Your task to perform on an android device: Google the capital of Paraguay Image 0: 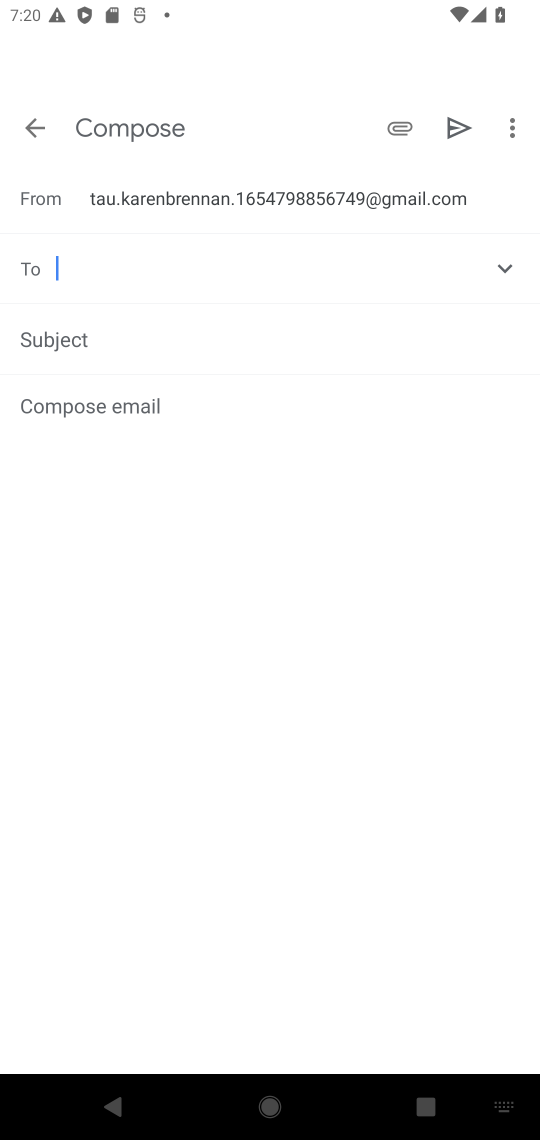
Step 0: press home button
Your task to perform on an android device: Google the capital of Paraguay Image 1: 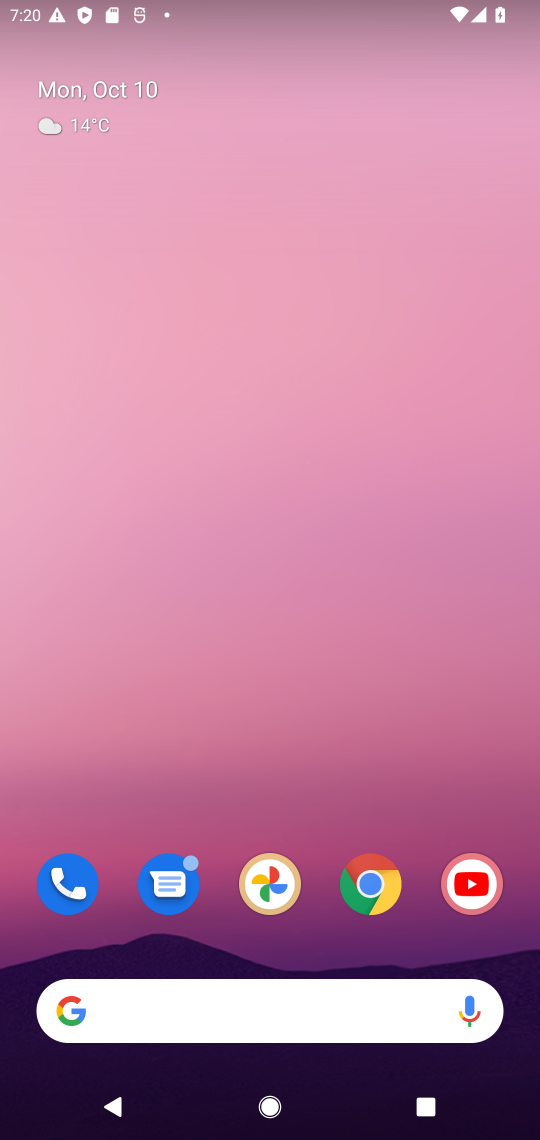
Step 1: drag from (343, 879) to (263, 113)
Your task to perform on an android device: Google the capital of Paraguay Image 2: 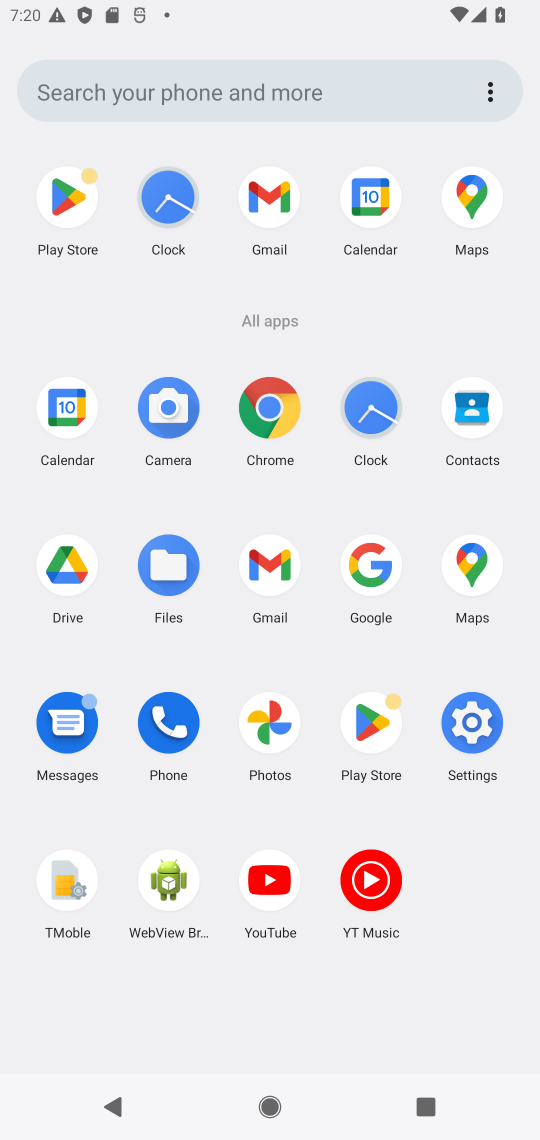
Step 2: click (290, 425)
Your task to perform on an android device: Google the capital of Paraguay Image 3: 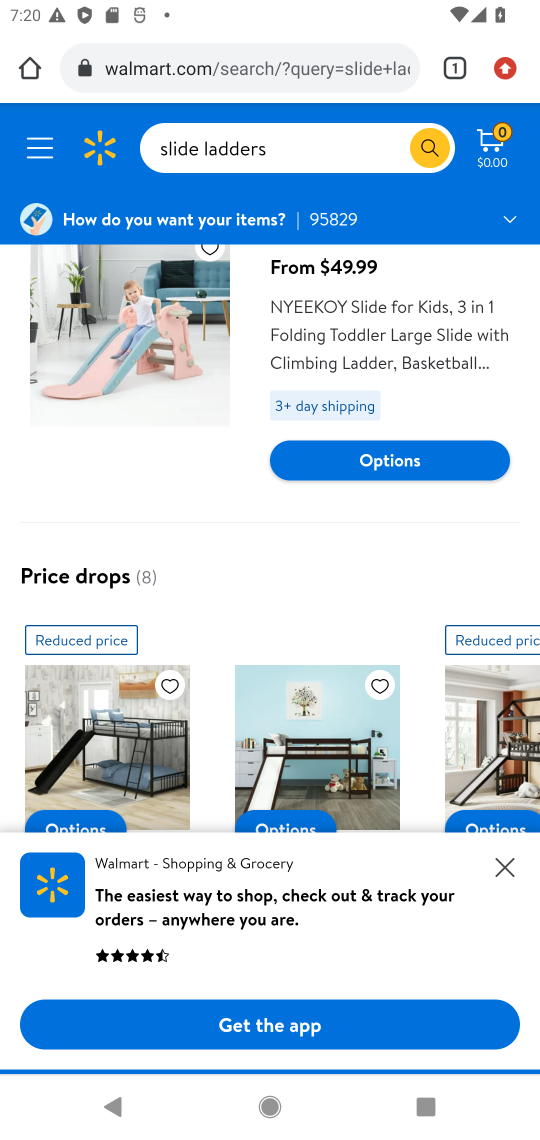
Step 3: click (268, 73)
Your task to perform on an android device: Google the capital of Paraguay Image 4: 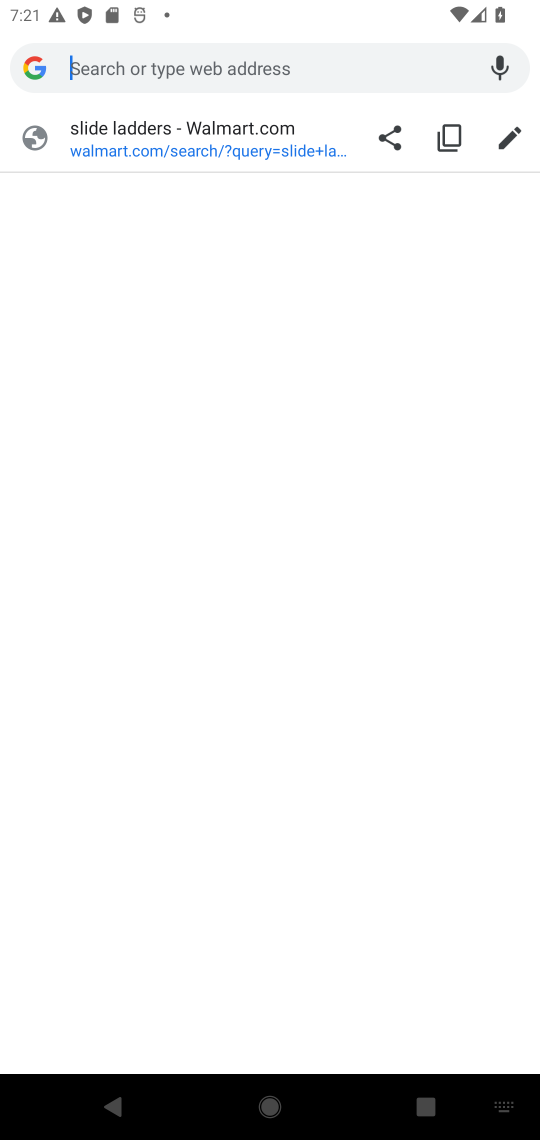
Step 4: type "capital of paraguay"
Your task to perform on an android device: Google the capital of Paraguay Image 5: 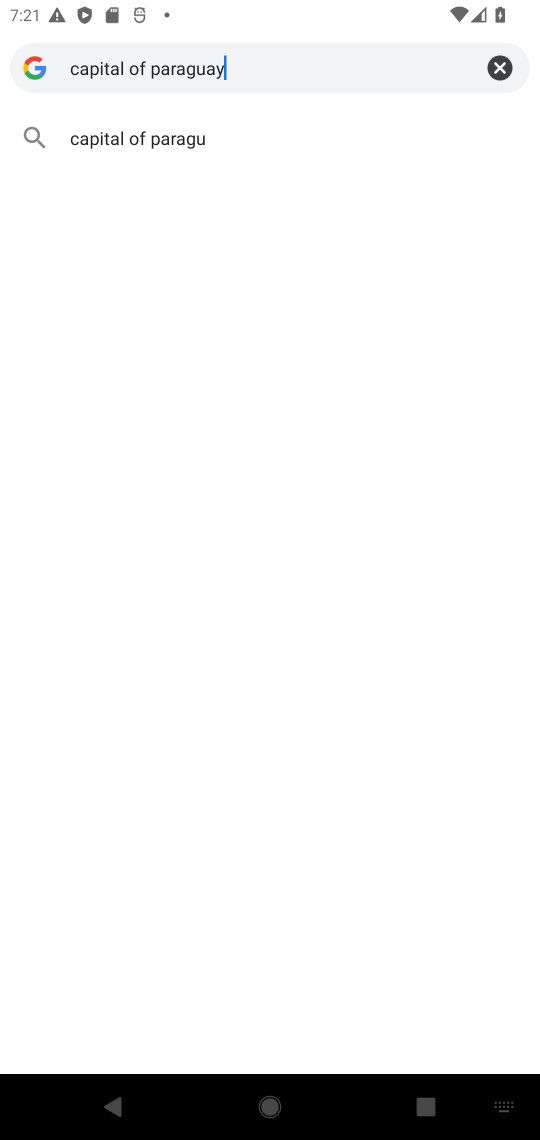
Step 5: type ""
Your task to perform on an android device: Google the capital of Paraguay Image 6: 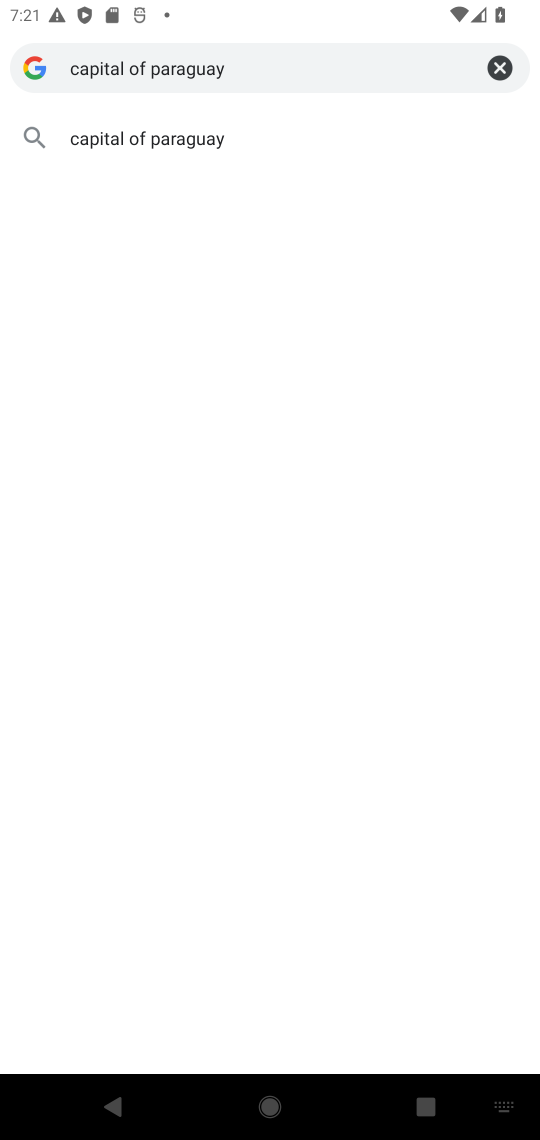
Step 6: click (132, 148)
Your task to perform on an android device: Google the capital of Paraguay Image 7: 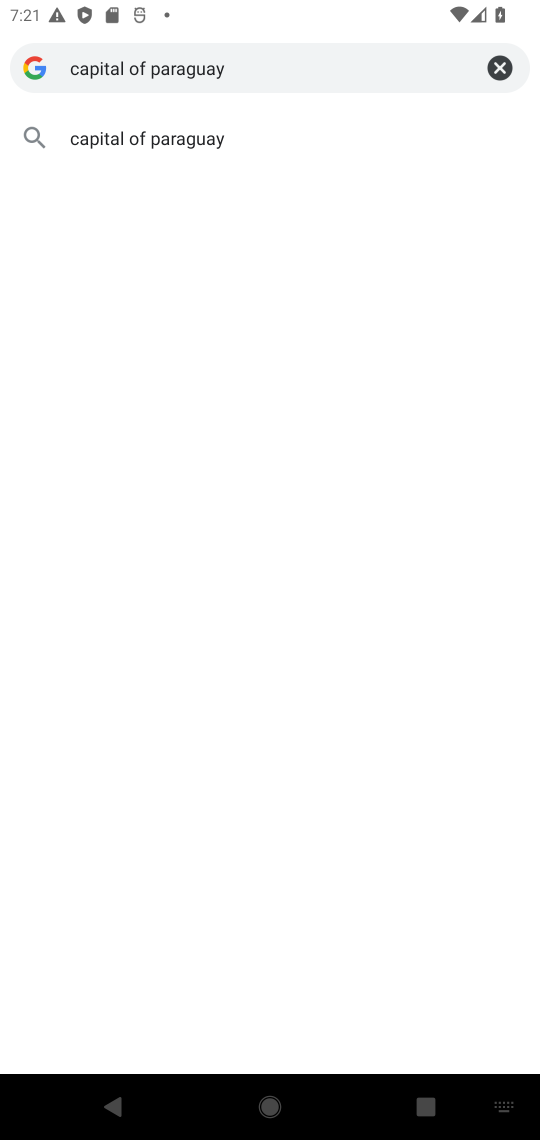
Step 7: click (132, 148)
Your task to perform on an android device: Google the capital of Paraguay Image 8: 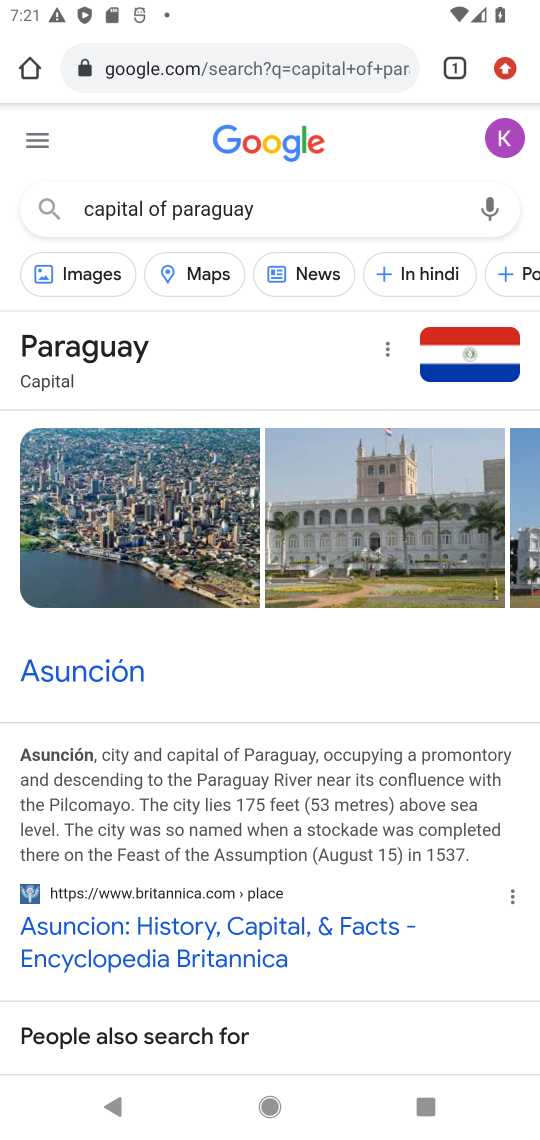
Step 8: drag from (348, 794) to (284, 273)
Your task to perform on an android device: Google the capital of Paraguay Image 9: 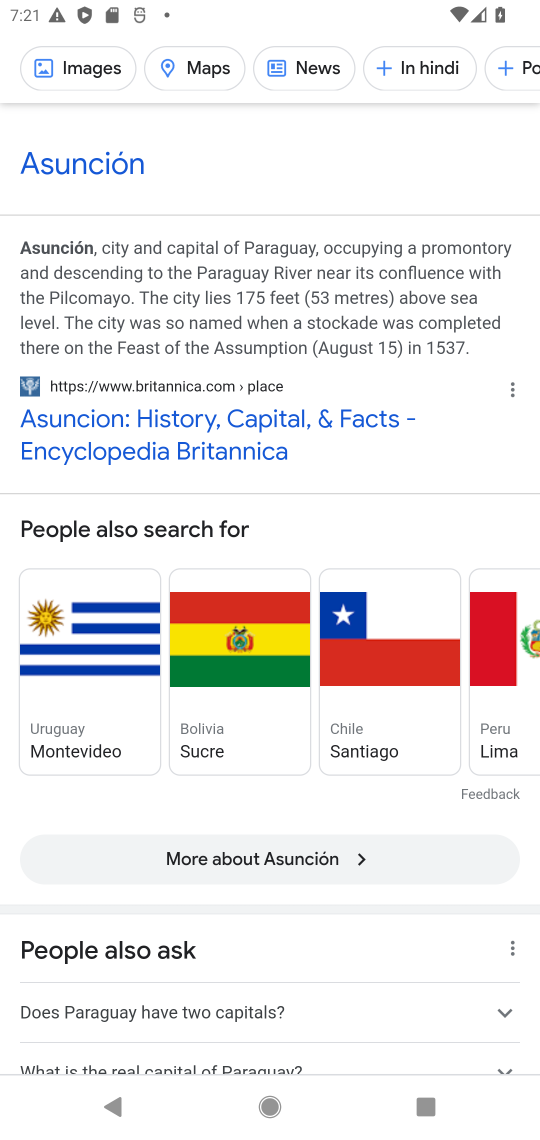
Step 9: drag from (400, 814) to (157, 1005)
Your task to perform on an android device: Google the capital of Paraguay Image 10: 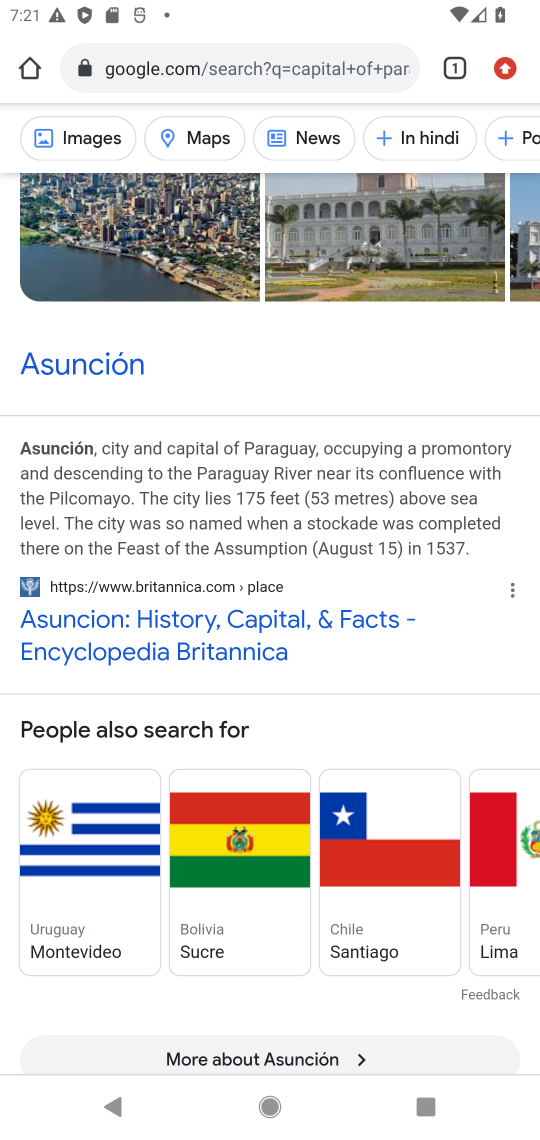
Step 10: click (93, 369)
Your task to perform on an android device: Google the capital of Paraguay Image 11: 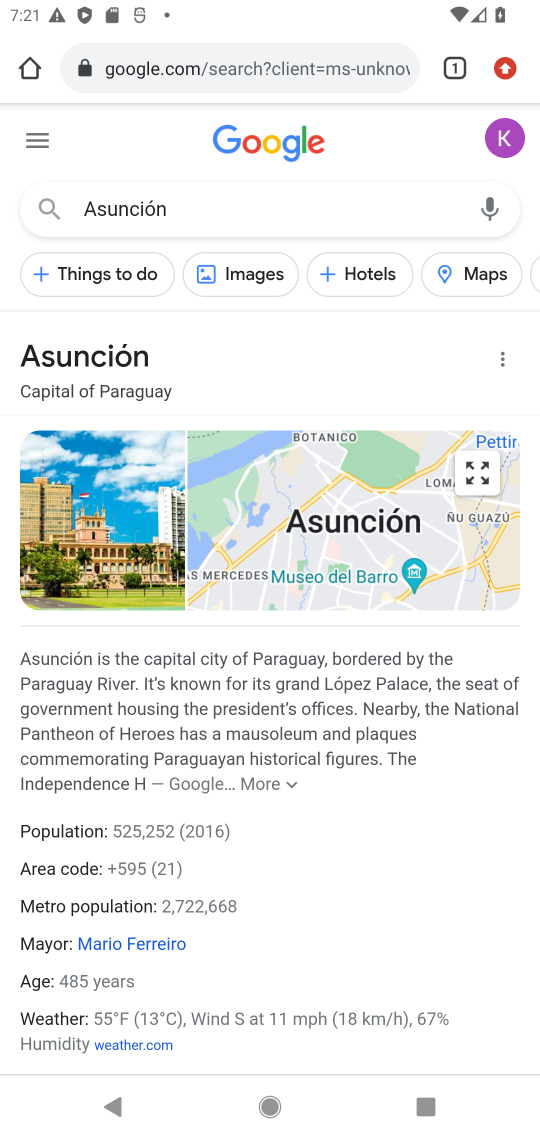
Step 11: drag from (383, 907) to (325, 529)
Your task to perform on an android device: Google the capital of Paraguay Image 12: 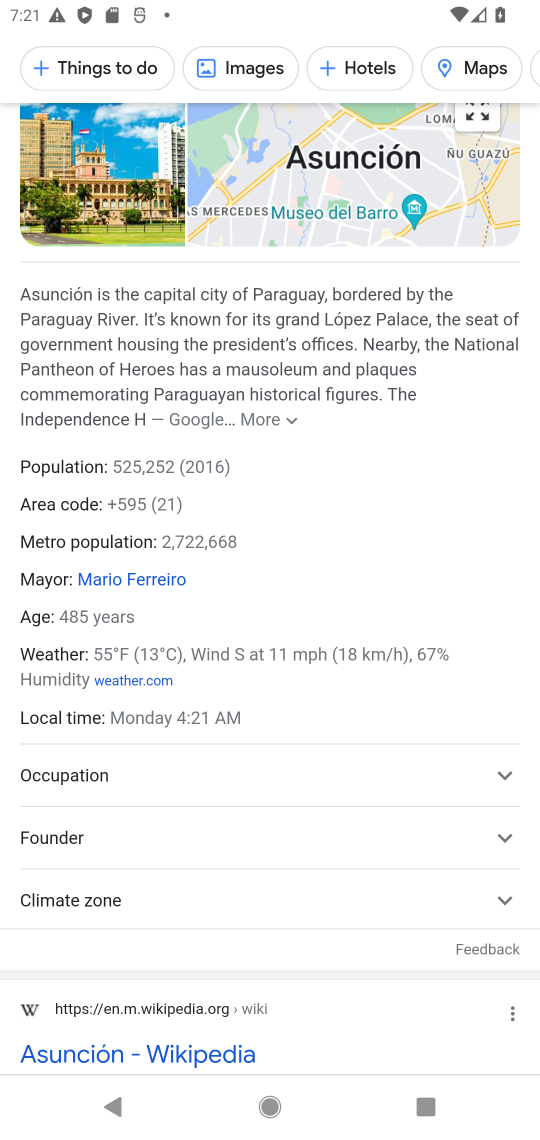
Step 12: drag from (353, 846) to (277, 326)
Your task to perform on an android device: Google the capital of Paraguay Image 13: 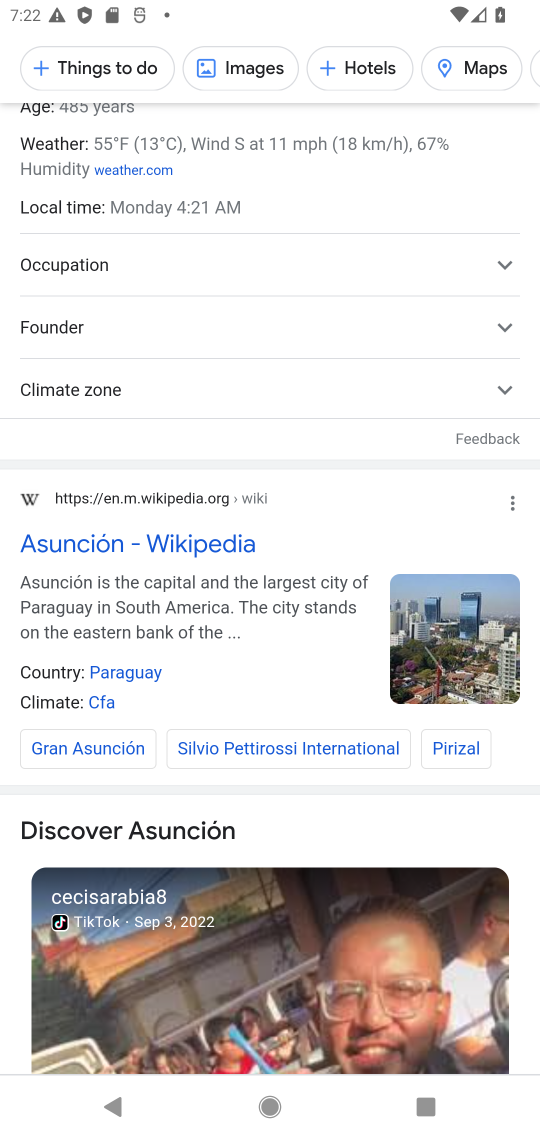
Step 13: drag from (324, 699) to (377, 504)
Your task to perform on an android device: Google the capital of Paraguay Image 14: 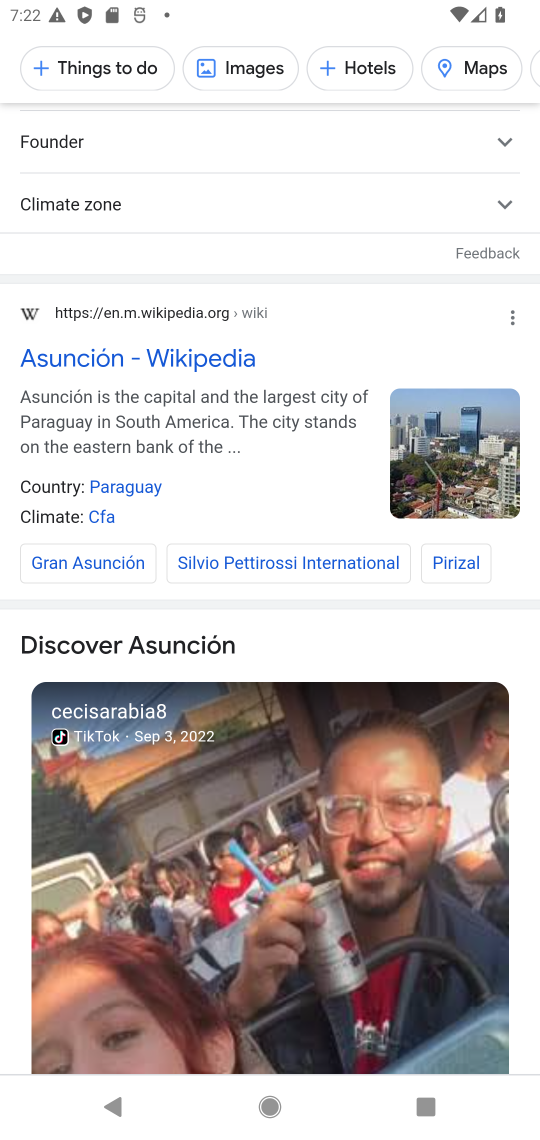
Step 14: drag from (360, 992) to (285, 206)
Your task to perform on an android device: Google the capital of Paraguay Image 15: 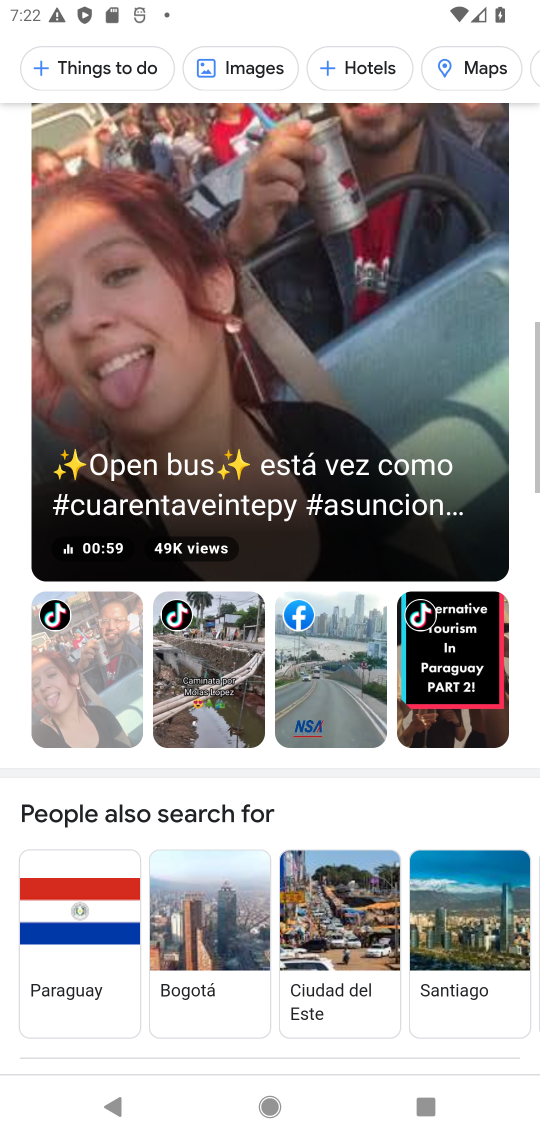
Step 15: drag from (419, 788) to (371, 373)
Your task to perform on an android device: Google the capital of Paraguay Image 16: 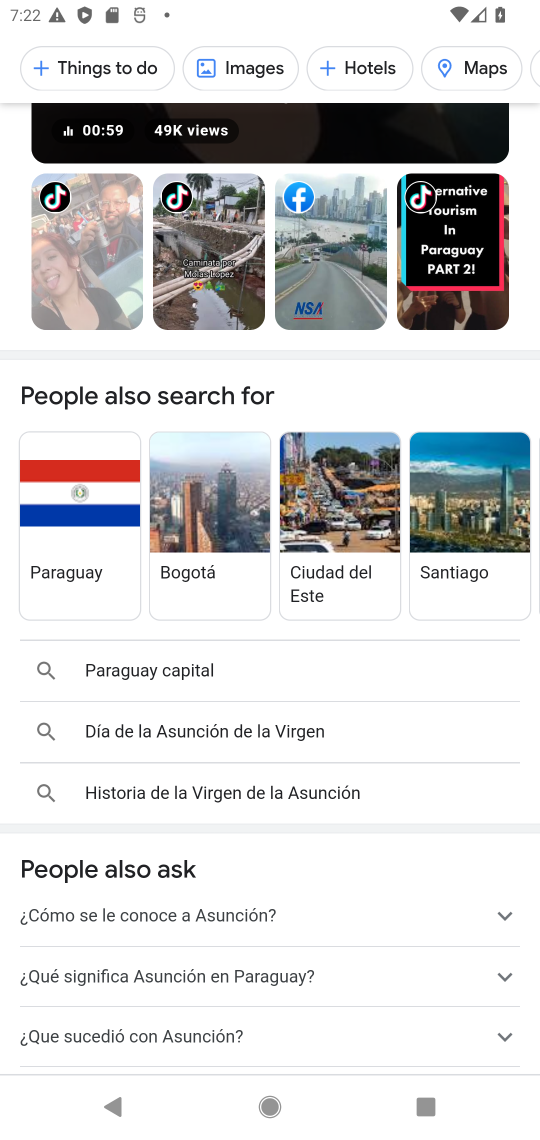
Step 16: drag from (337, 518) to (324, 199)
Your task to perform on an android device: Google the capital of Paraguay Image 17: 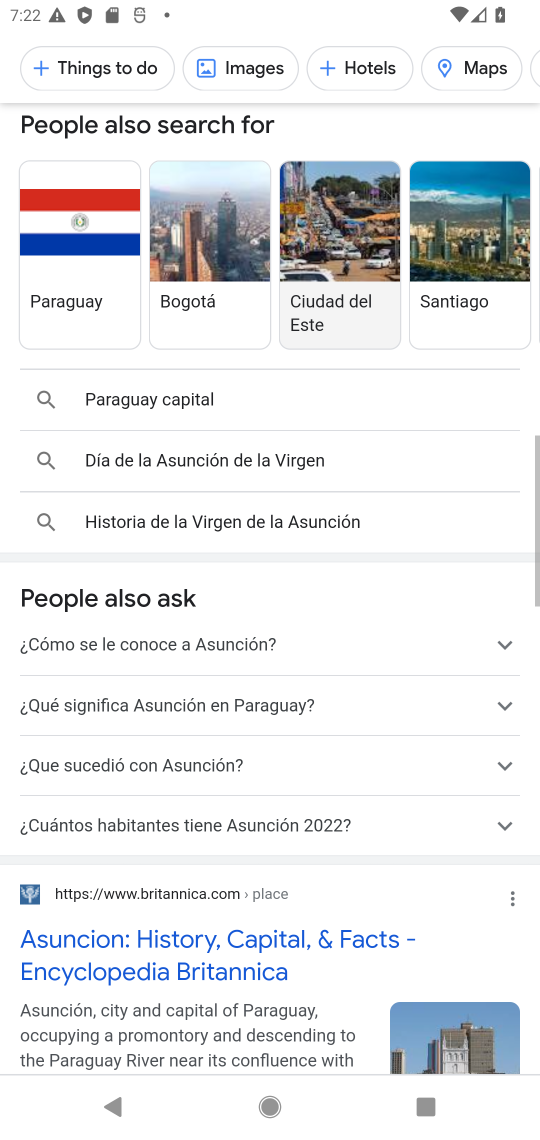
Step 17: drag from (375, 738) to (284, 223)
Your task to perform on an android device: Google the capital of Paraguay Image 18: 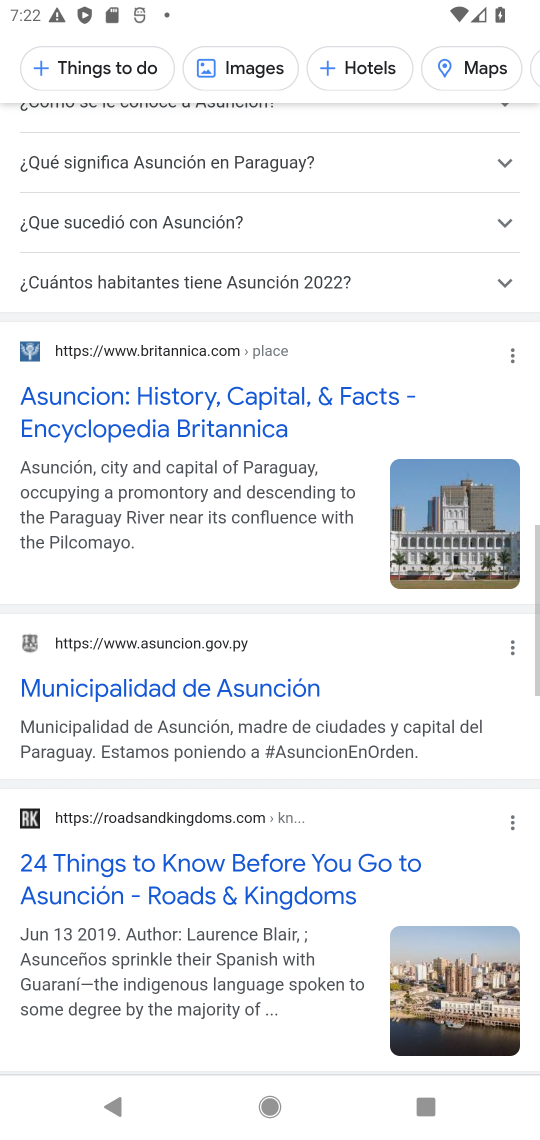
Step 18: drag from (357, 828) to (338, 293)
Your task to perform on an android device: Google the capital of Paraguay Image 19: 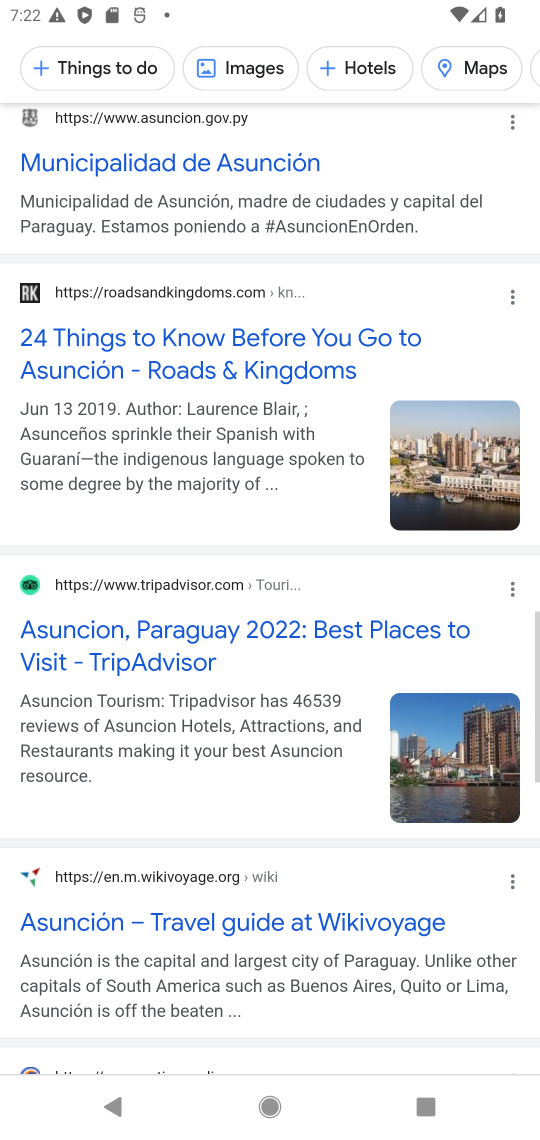
Step 19: drag from (362, 592) to (349, 229)
Your task to perform on an android device: Google the capital of Paraguay Image 20: 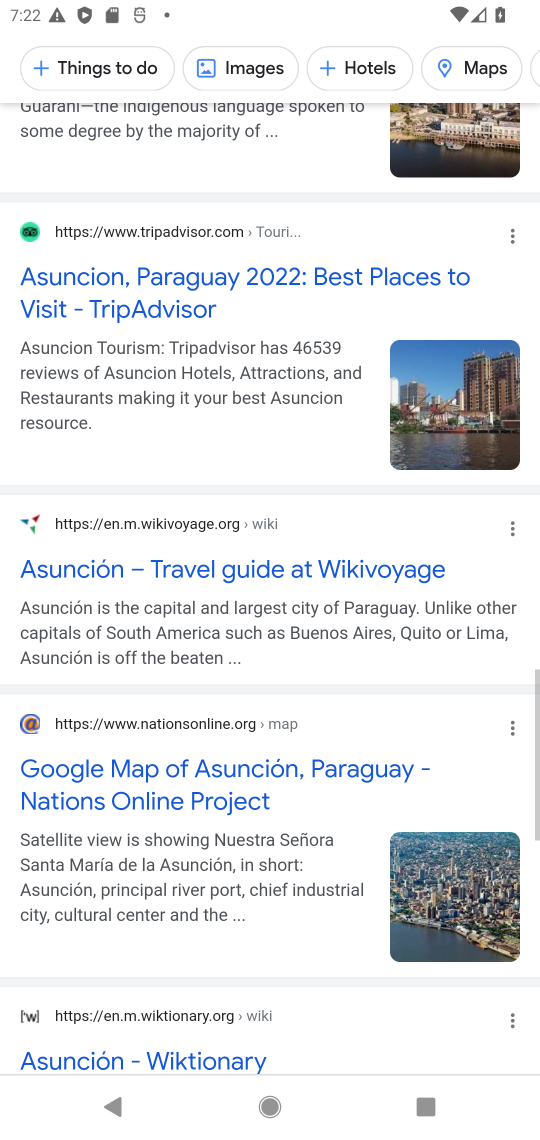
Step 20: drag from (360, 663) to (315, 311)
Your task to perform on an android device: Google the capital of Paraguay Image 21: 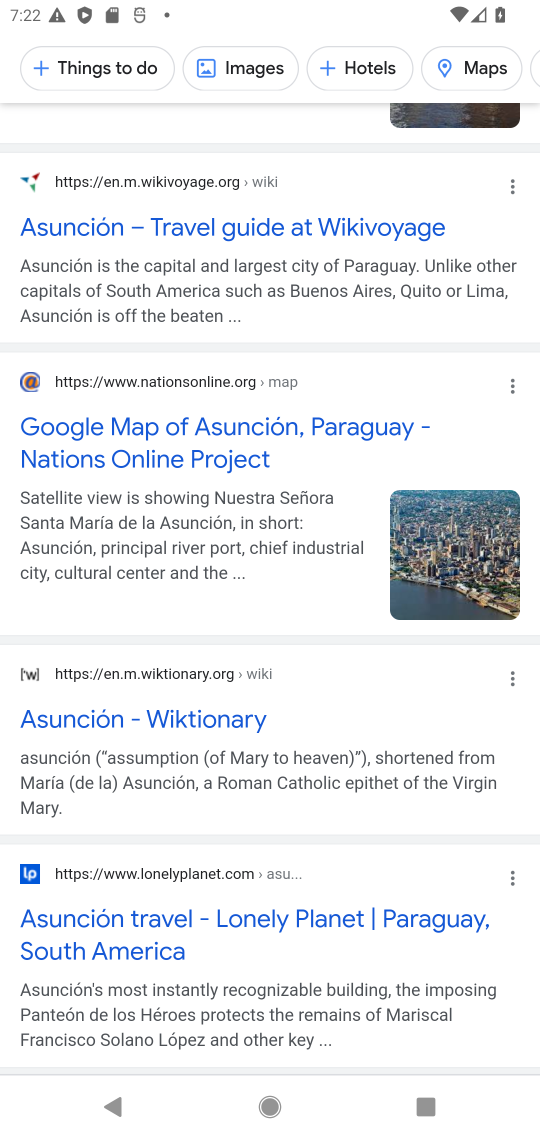
Step 21: drag from (287, 873) to (356, 309)
Your task to perform on an android device: Google the capital of Paraguay Image 22: 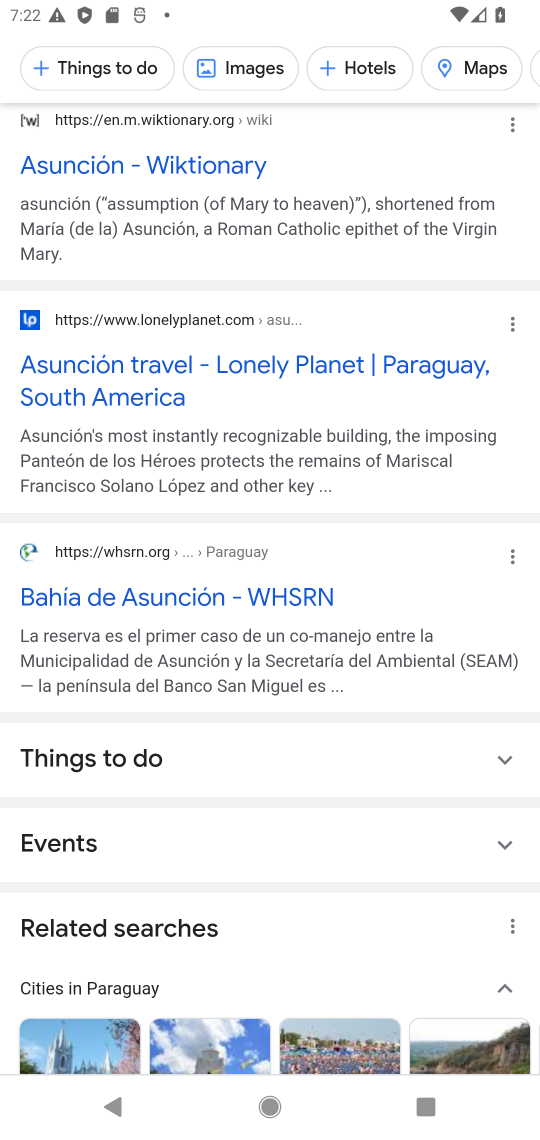
Step 22: drag from (346, 951) to (383, 355)
Your task to perform on an android device: Google the capital of Paraguay Image 23: 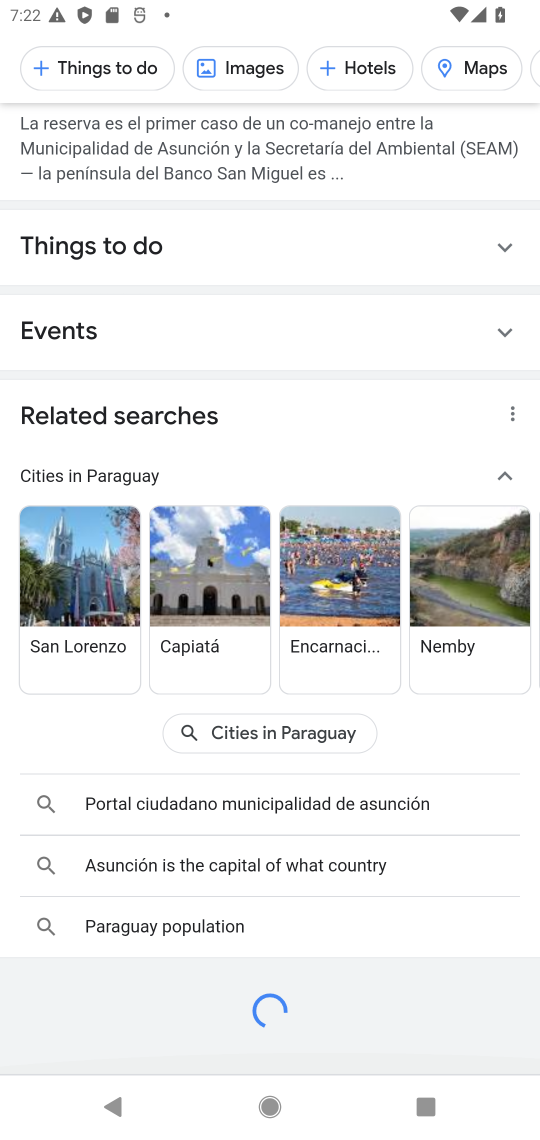
Step 23: drag from (401, 679) to (357, 230)
Your task to perform on an android device: Google the capital of Paraguay Image 24: 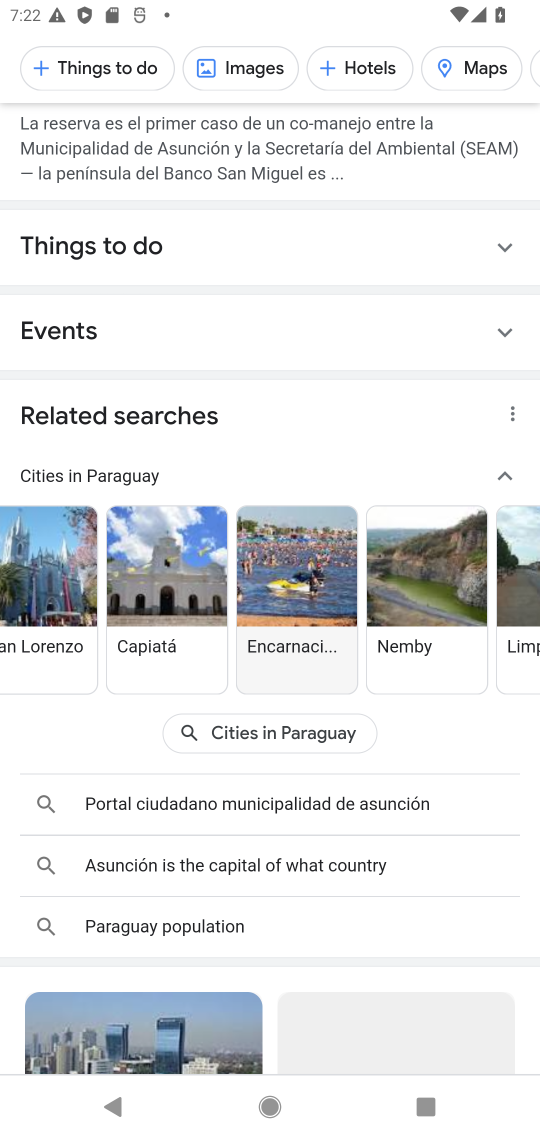
Step 24: drag from (400, 675) to (409, 337)
Your task to perform on an android device: Google the capital of Paraguay Image 25: 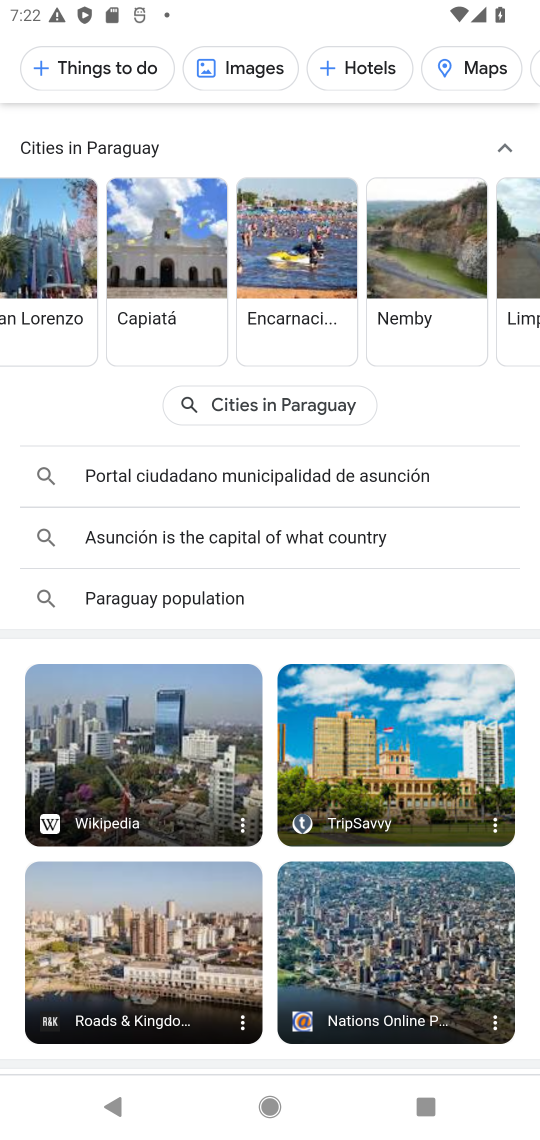
Step 25: drag from (406, 743) to (387, 69)
Your task to perform on an android device: Google the capital of Paraguay Image 26: 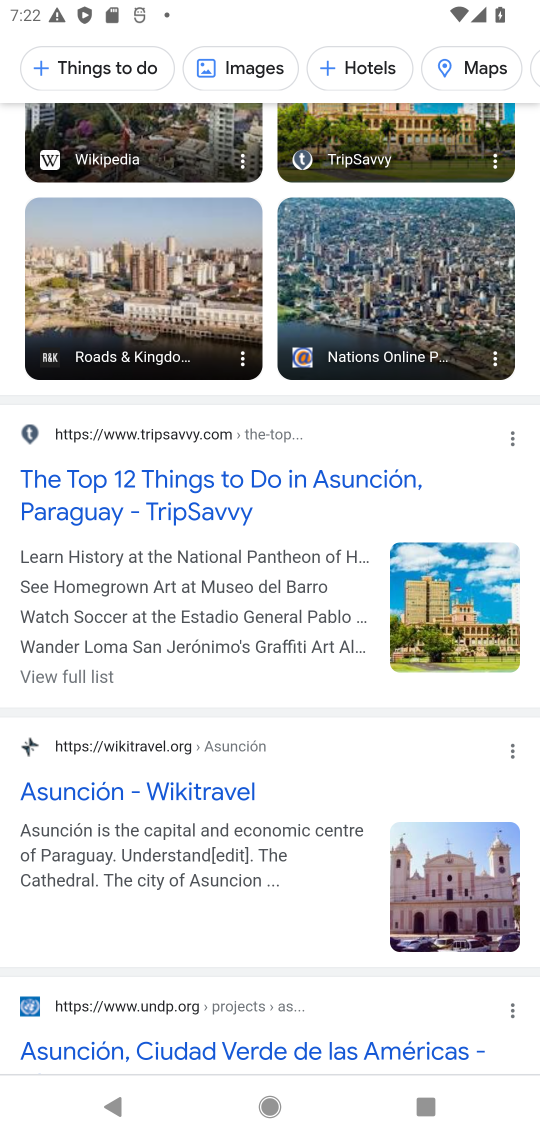
Step 26: click (249, 798)
Your task to perform on an android device: Google the capital of Paraguay Image 27: 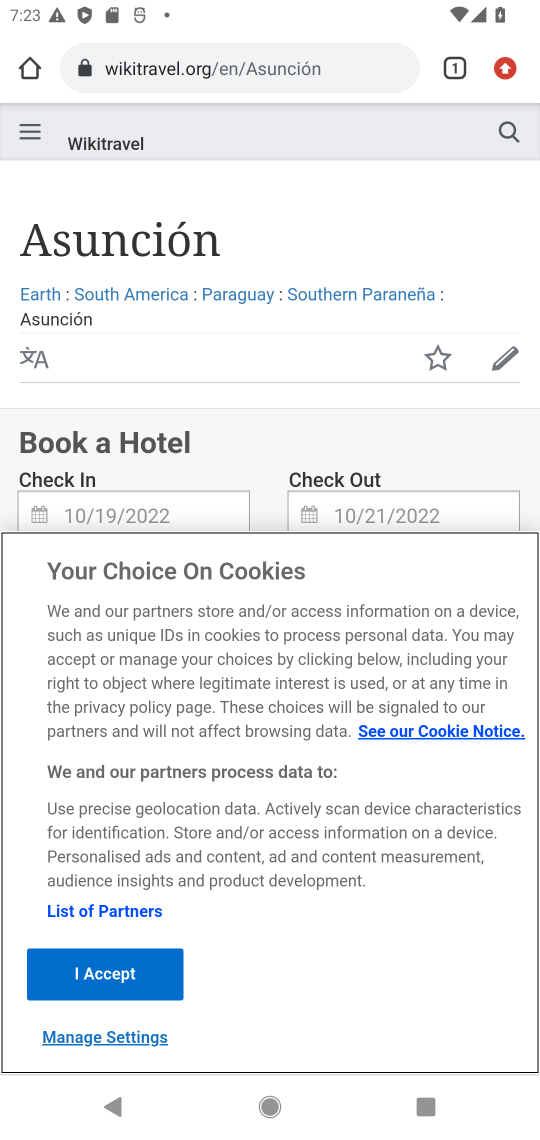
Step 27: drag from (210, 719) to (273, 0)
Your task to perform on an android device: Google the capital of Paraguay Image 28: 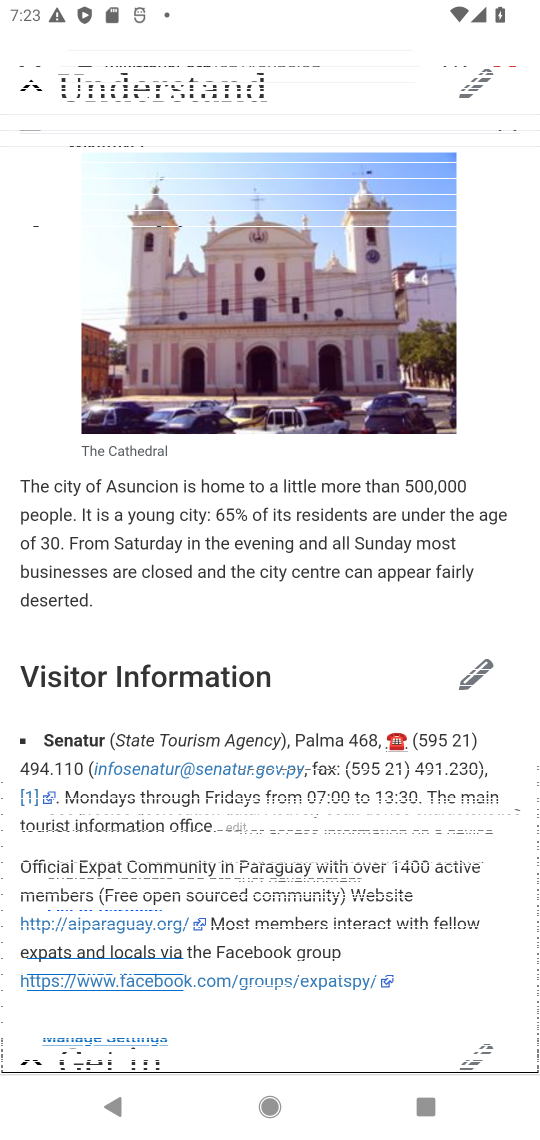
Step 28: drag from (354, 375) to (387, 418)
Your task to perform on an android device: Google the capital of Paraguay Image 29: 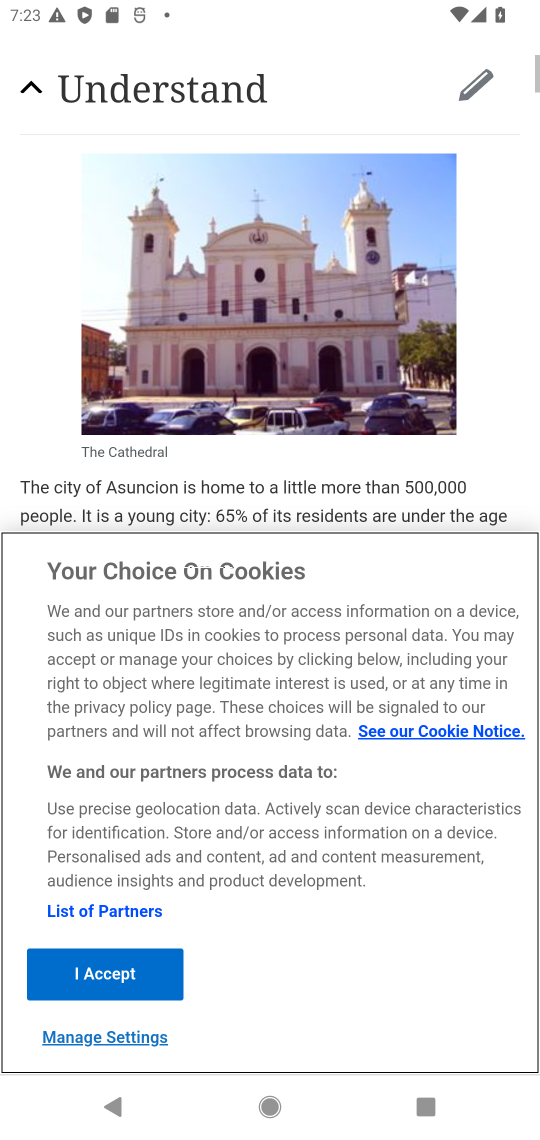
Step 29: drag from (395, 406) to (402, 348)
Your task to perform on an android device: Google the capital of Paraguay Image 30: 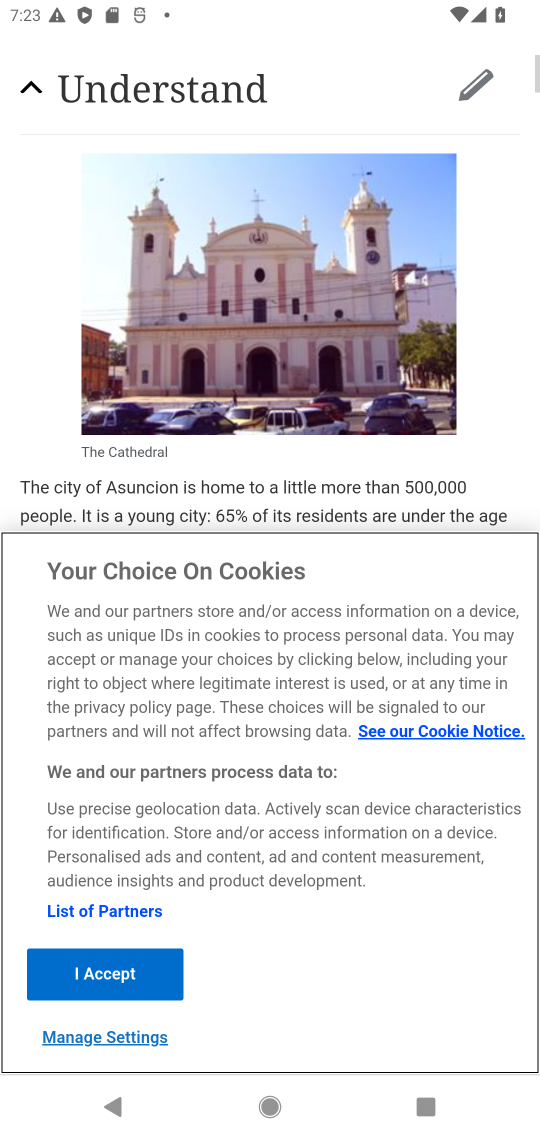
Step 30: drag from (388, 332) to (384, 221)
Your task to perform on an android device: Google the capital of Paraguay Image 31: 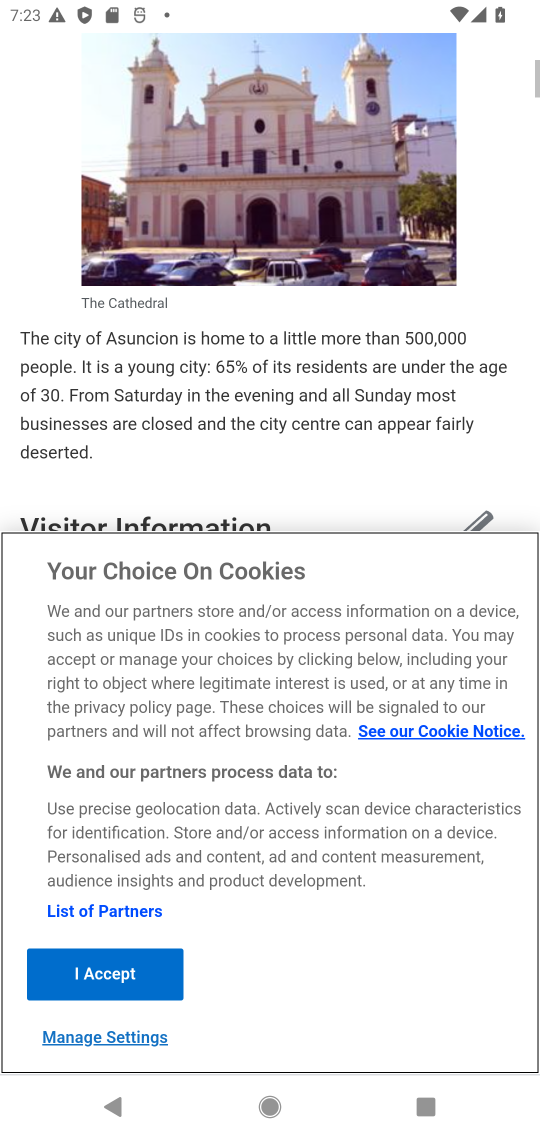
Step 31: click (385, 128)
Your task to perform on an android device: Google the capital of Paraguay Image 32: 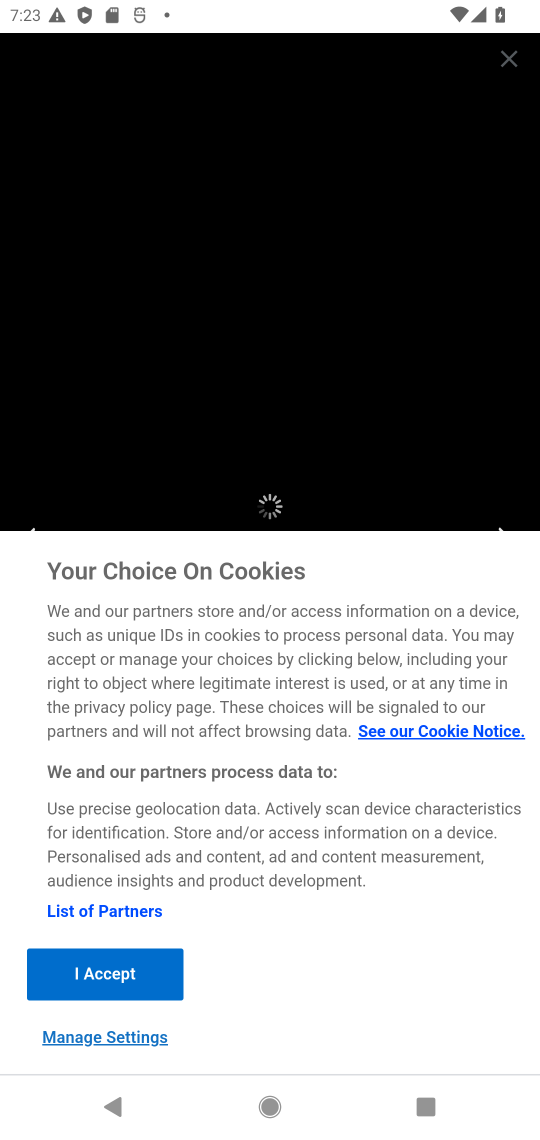
Step 32: press back button
Your task to perform on an android device: Google the capital of Paraguay Image 33: 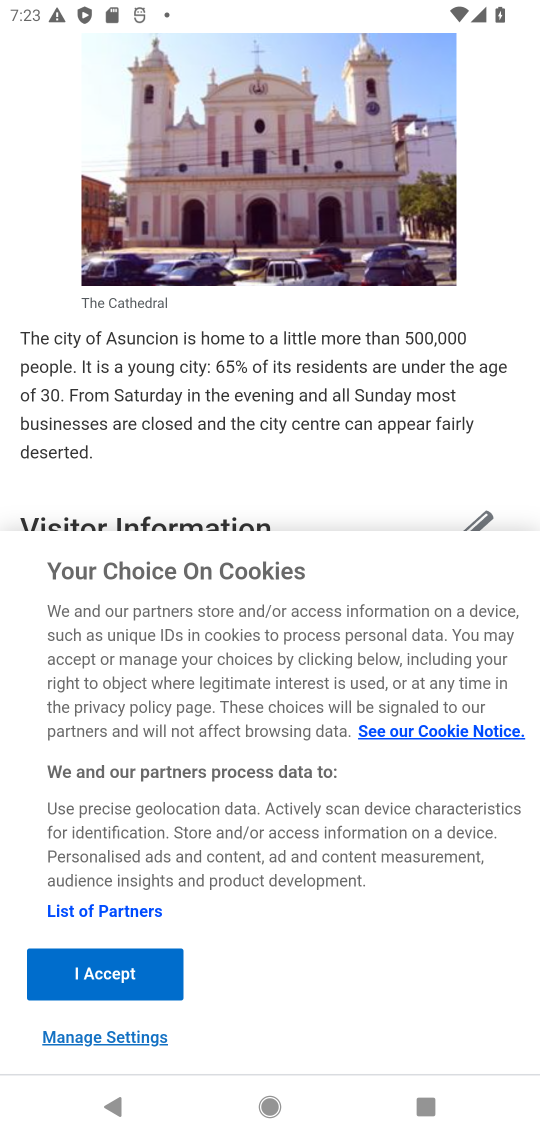
Step 33: press back button
Your task to perform on an android device: Google the capital of Paraguay Image 34: 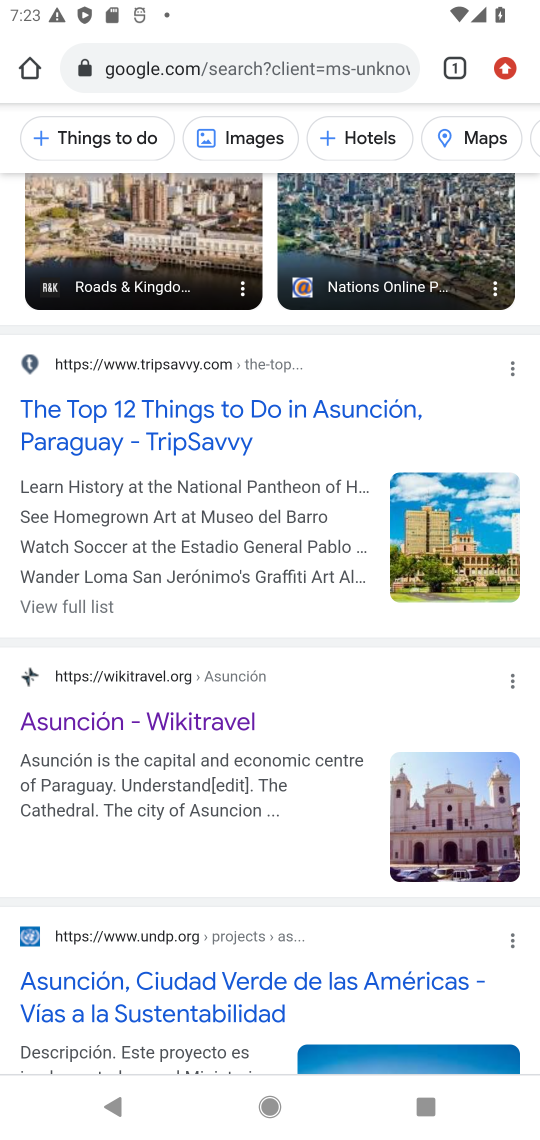
Step 34: drag from (421, 232) to (323, 830)
Your task to perform on an android device: Google the capital of Paraguay Image 35: 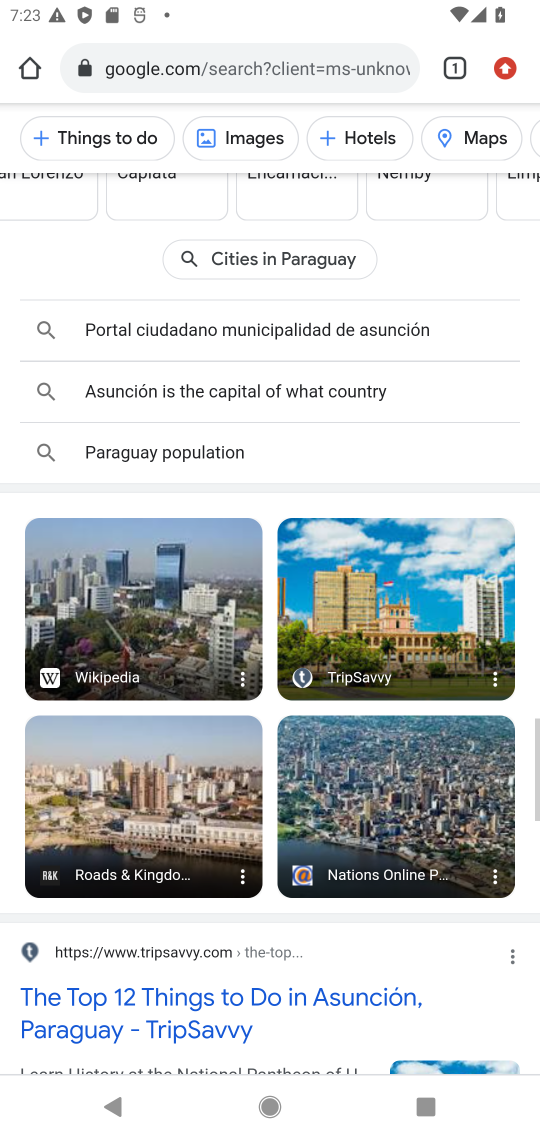
Step 35: drag from (293, 521) to (234, 958)
Your task to perform on an android device: Google the capital of Paraguay Image 36: 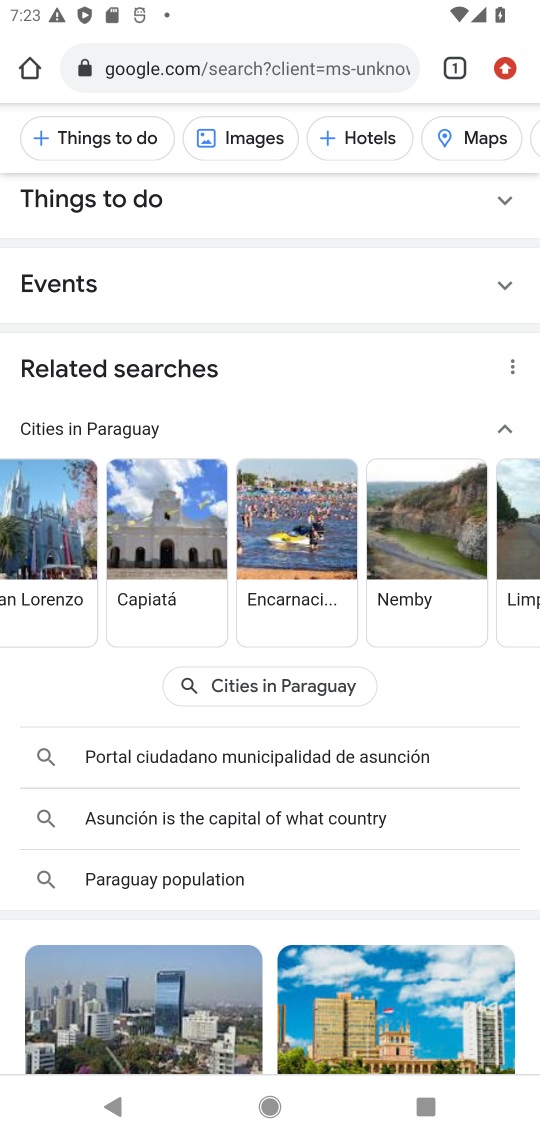
Step 36: drag from (283, 495) to (233, 943)
Your task to perform on an android device: Google the capital of Paraguay Image 37: 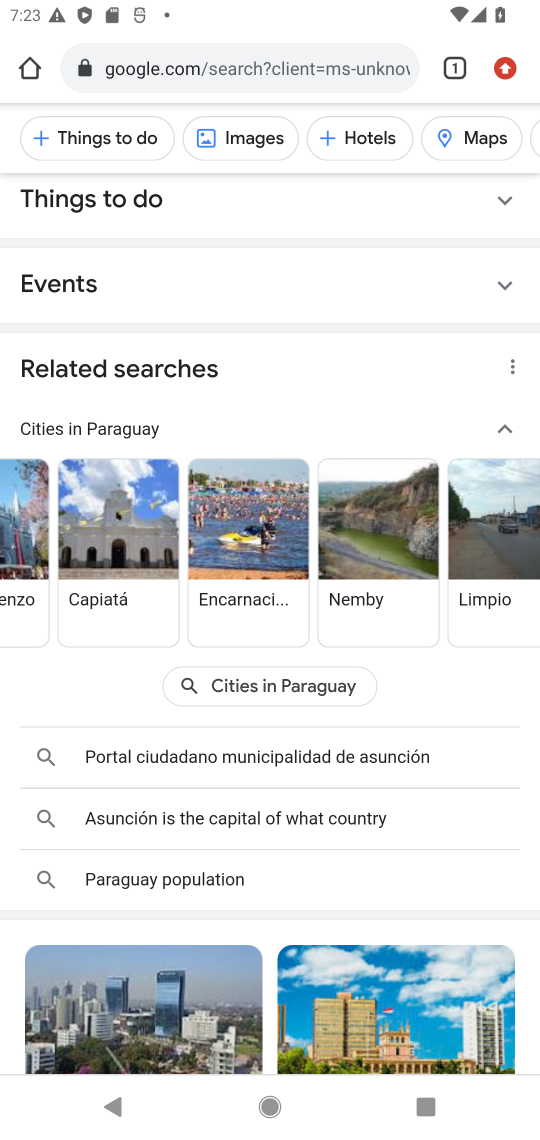
Step 37: drag from (272, 543) to (246, 841)
Your task to perform on an android device: Google the capital of Paraguay Image 38: 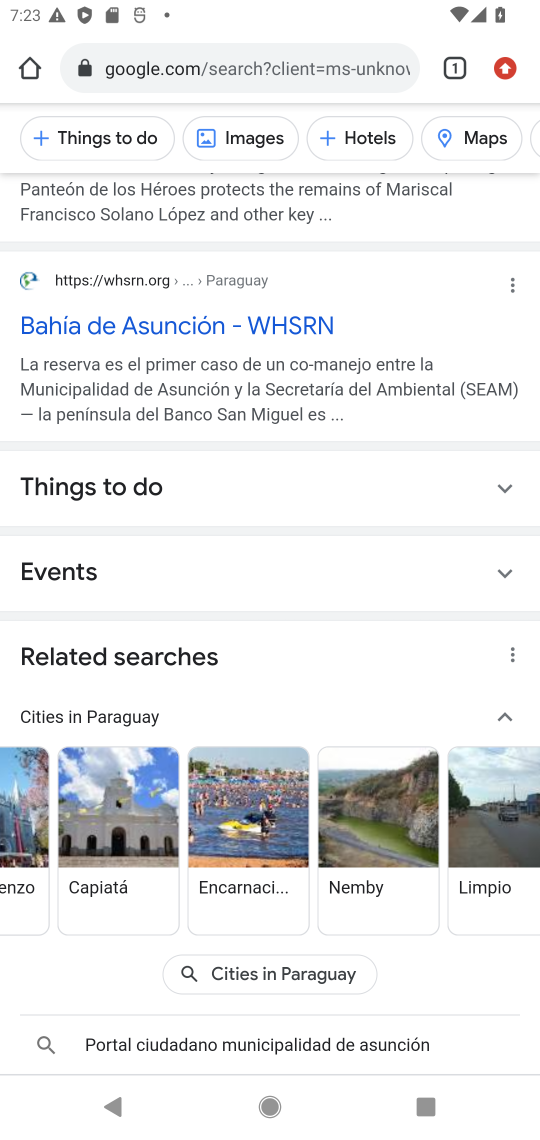
Step 38: drag from (302, 403) to (255, 653)
Your task to perform on an android device: Google the capital of Paraguay Image 39: 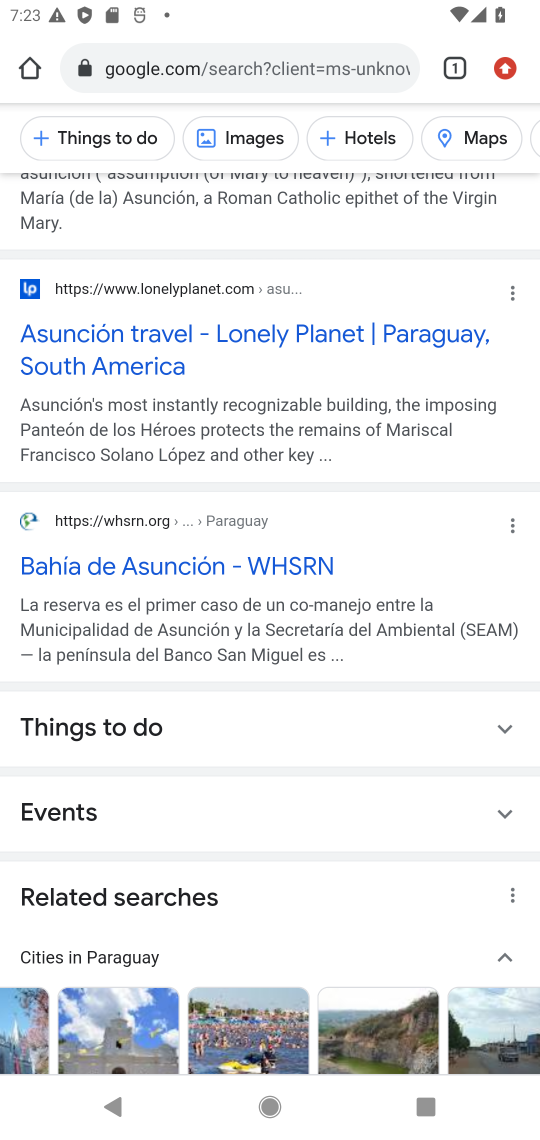
Step 39: click (154, 367)
Your task to perform on an android device: Google the capital of Paraguay Image 40: 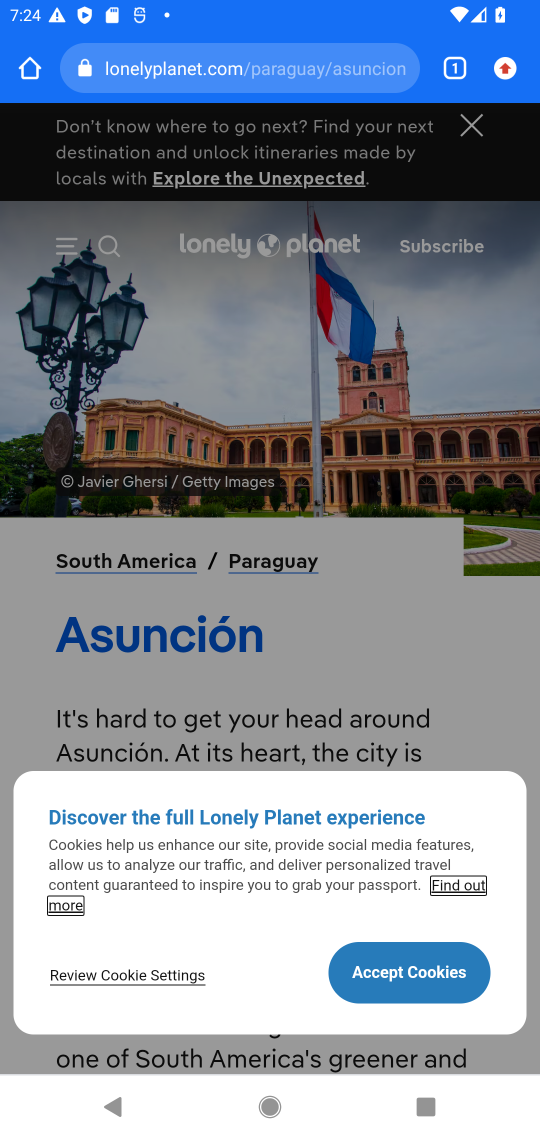
Step 40: click (374, 958)
Your task to perform on an android device: Google the capital of Paraguay Image 41: 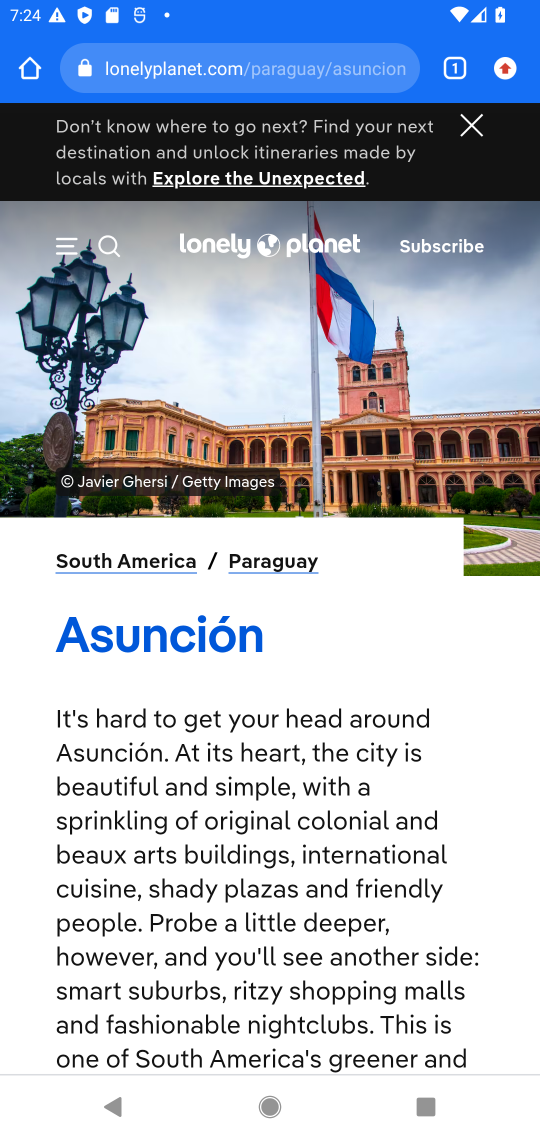
Step 41: drag from (280, 366) to (276, 892)
Your task to perform on an android device: Google the capital of Paraguay Image 42: 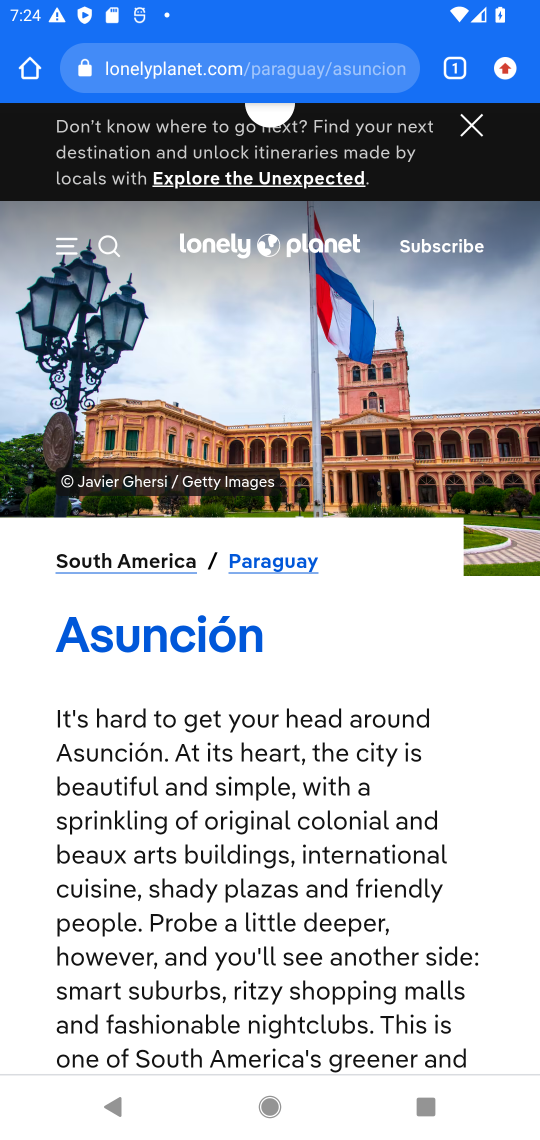
Step 42: drag from (328, 870) to (361, 106)
Your task to perform on an android device: Google the capital of Paraguay Image 43: 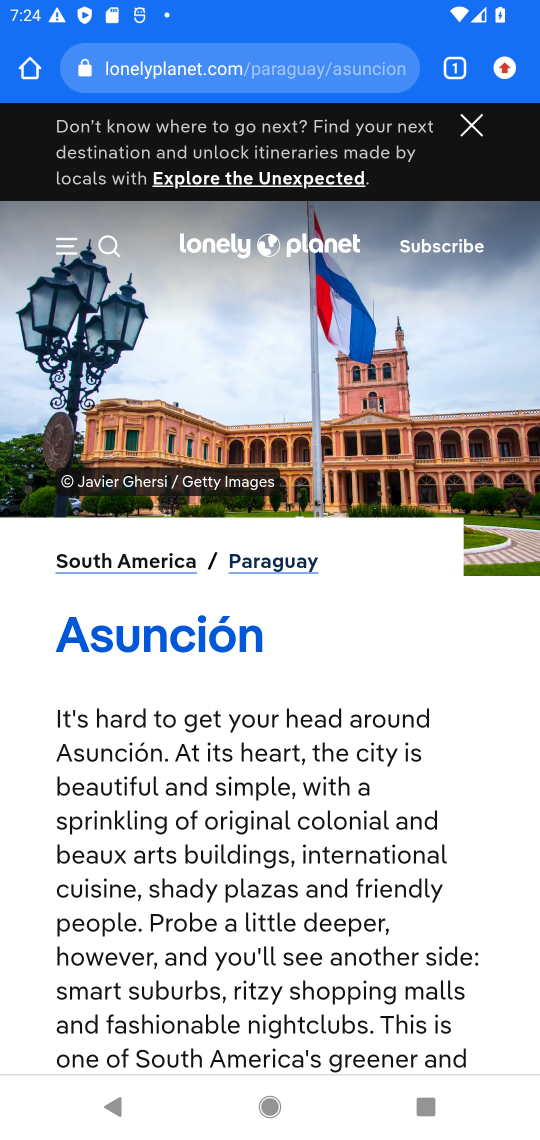
Step 43: drag from (360, 431) to (344, 234)
Your task to perform on an android device: Google the capital of Paraguay Image 44: 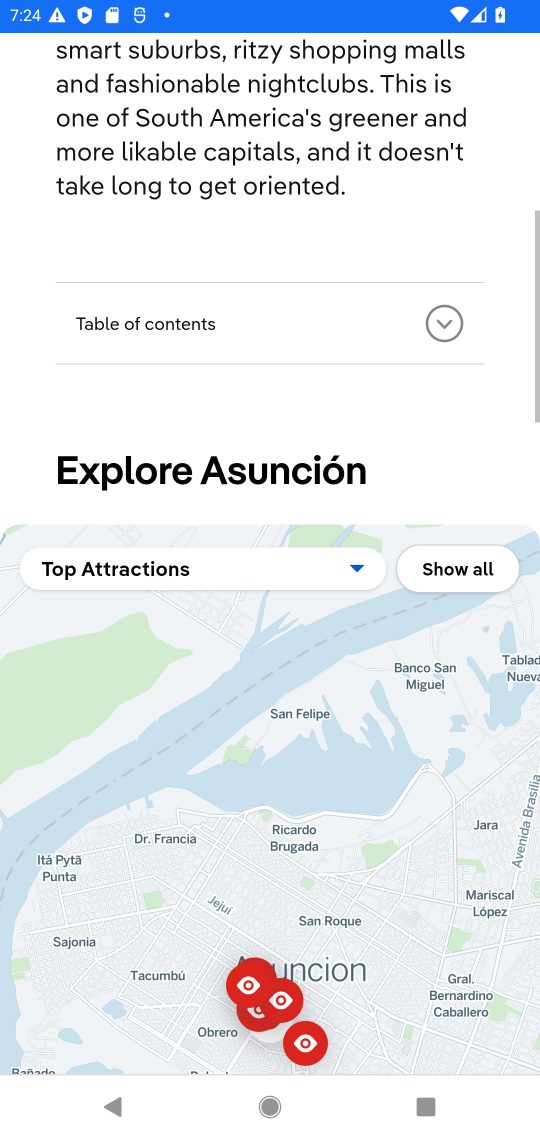
Step 44: drag from (332, 512) to (355, 281)
Your task to perform on an android device: Google the capital of Paraguay Image 45: 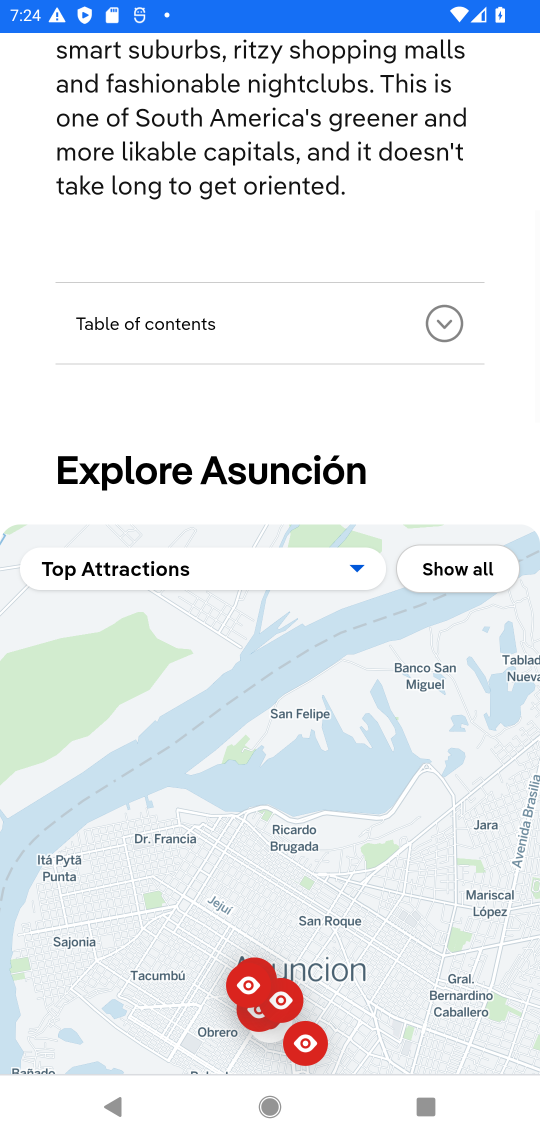
Step 45: drag from (336, 662) to (345, 336)
Your task to perform on an android device: Google the capital of Paraguay Image 46: 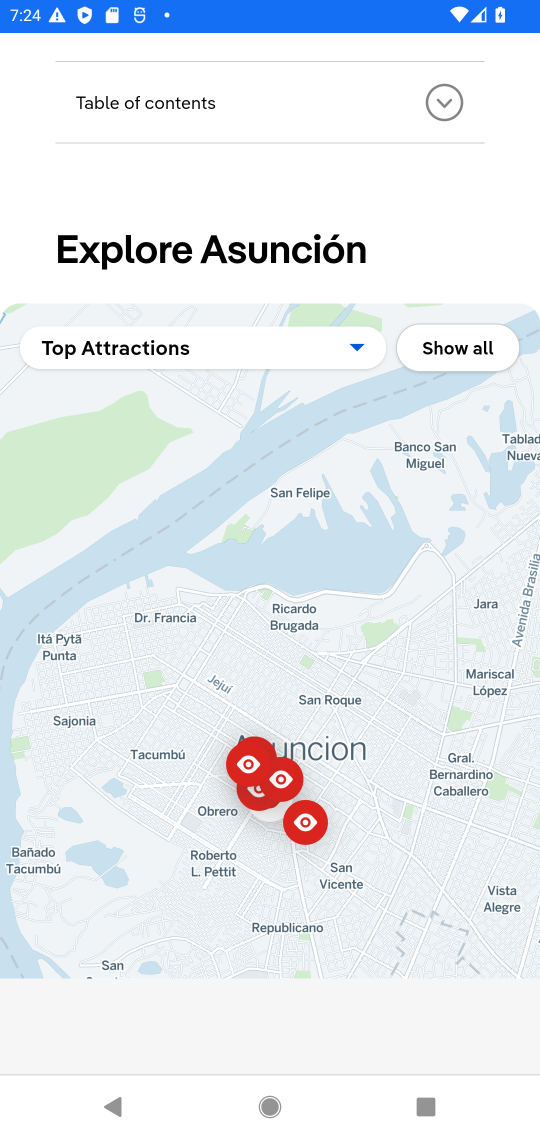
Step 46: drag from (362, 641) to (380, 339)
Your task to perform on an android device: Google the capital of Paraguay Image 47: 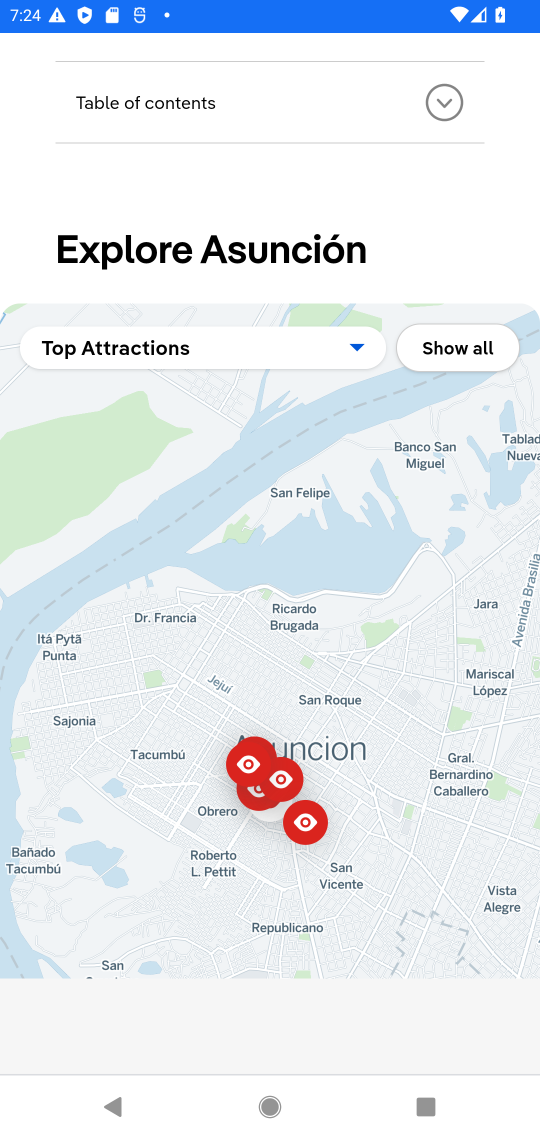
Step 47: drag from (354, 632) to (360, 337)
Your task to perform on an android device: Google the capital of Paraguay Image 48: 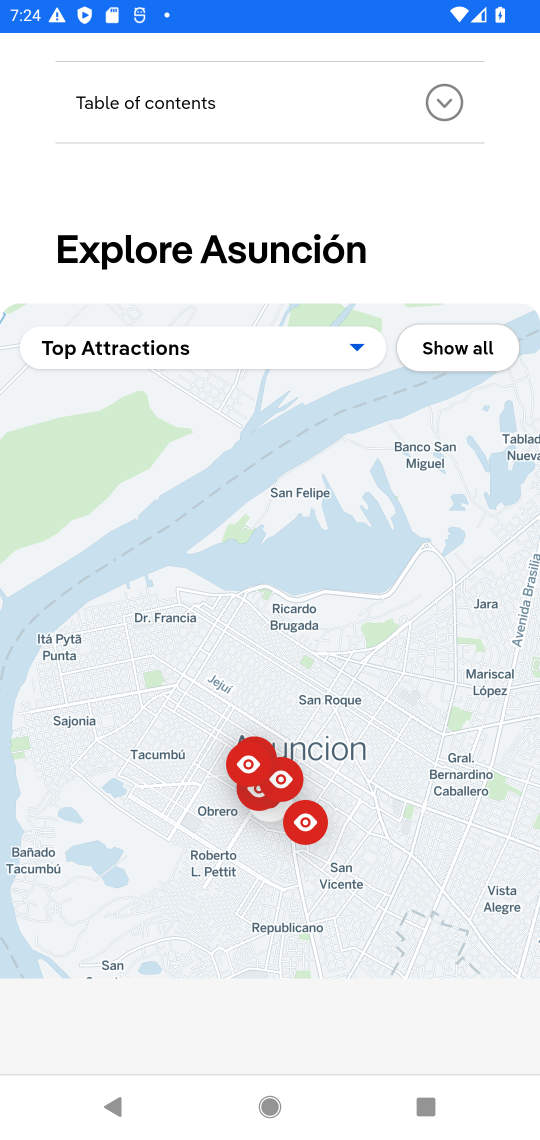
Step 48: drag from (309, 708) to (386, 270)
Your task to perform on an android device: Google the capital of Paraguay Image 49: 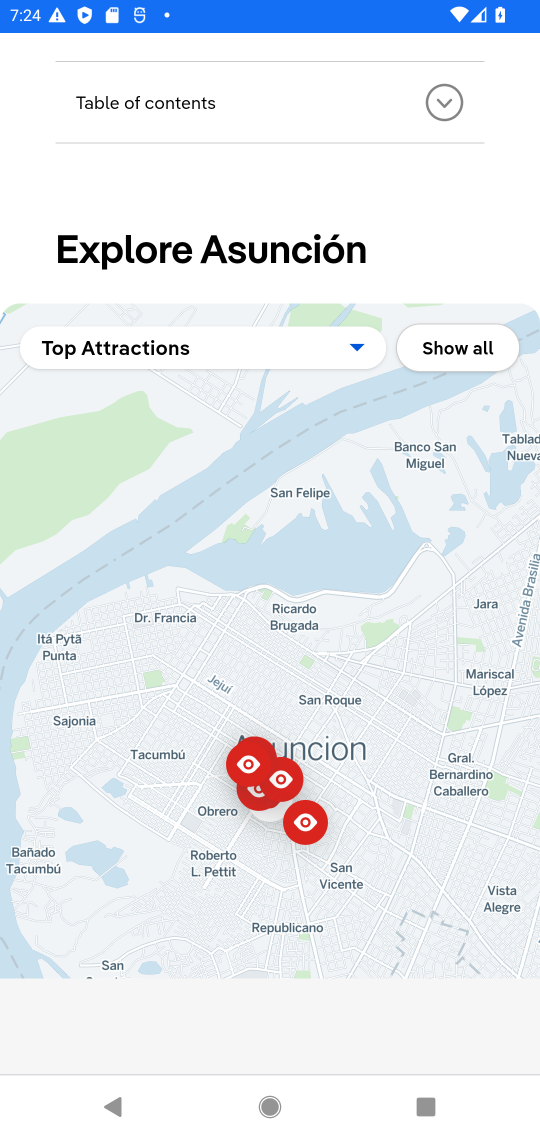
Step 49: drag from (371, 722) to (381, 184)
Your task to perform on an android device: Google the capital of Paraguay Image 50: 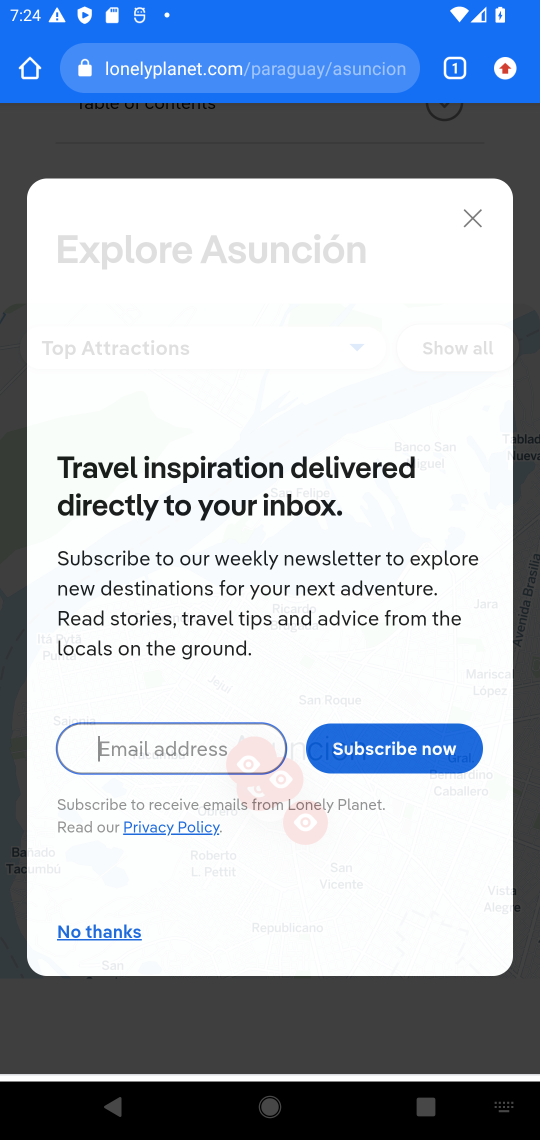
Step 50: drag from (370, 651) to (365, 219)
Your task to perform on an android device: Google the capital of Paraguay Image 51: 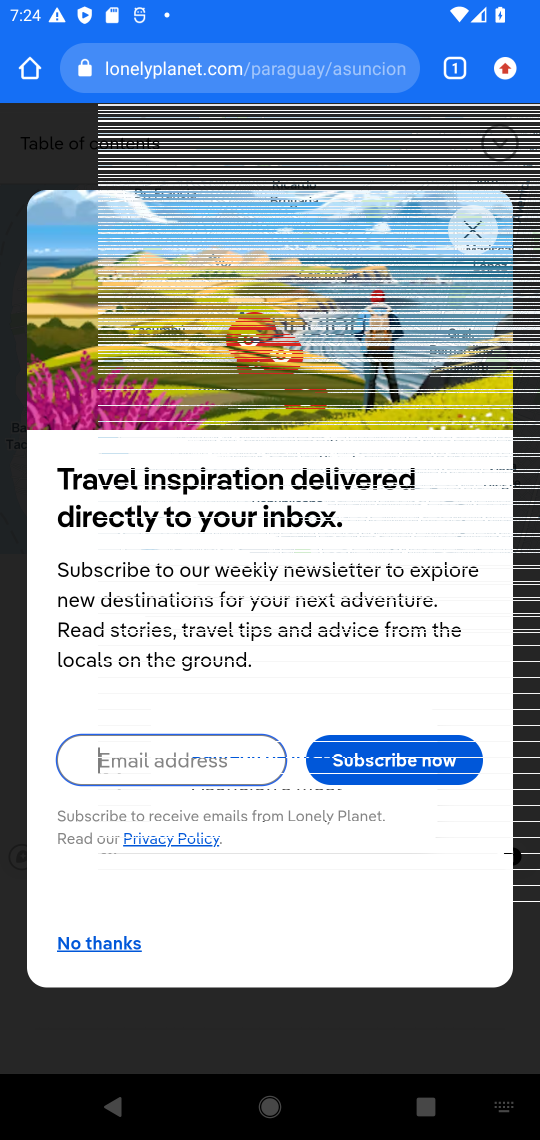
Step 51: click (463, 225)
Your task to perform on an android device: Google the capital of Paraguay Image 52: 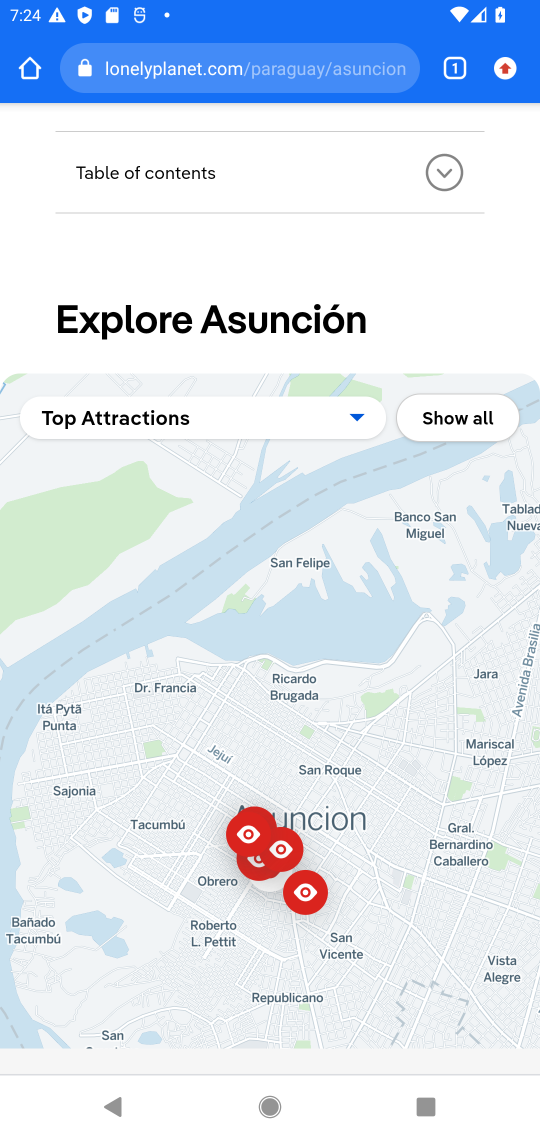
Step 52: task complete